Your task to perform on an android device: Open battery settings Image 0: 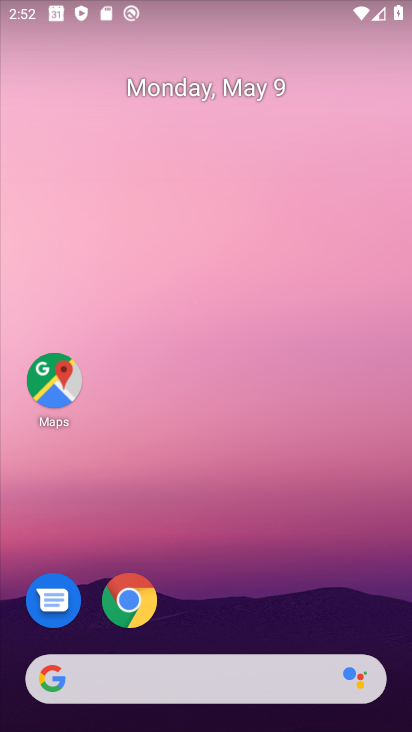
Step 0: drag from (221, 702) to (222, 148)
Your task to perform on an android device: Open battery settings Image 1: 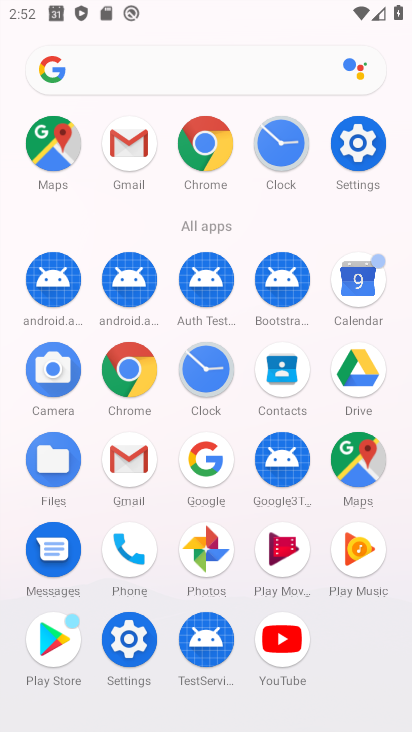
Step 1: click (356, 142)
Your task to perform on an android device: Open battery settings Image 2: 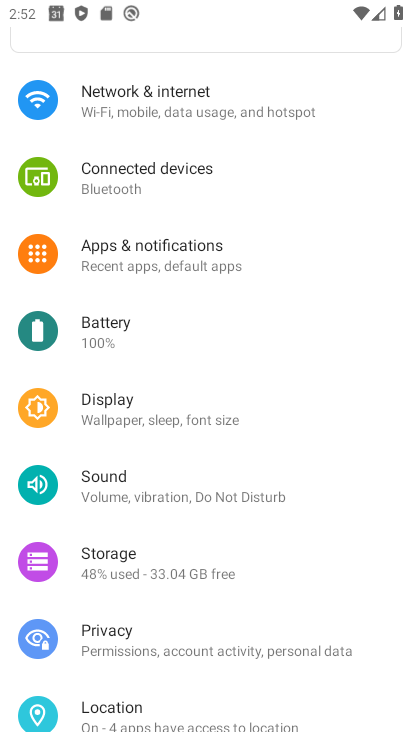
Step 2: click (94, 326)
Your task to perform on an android device: Open battery settings Image 3: 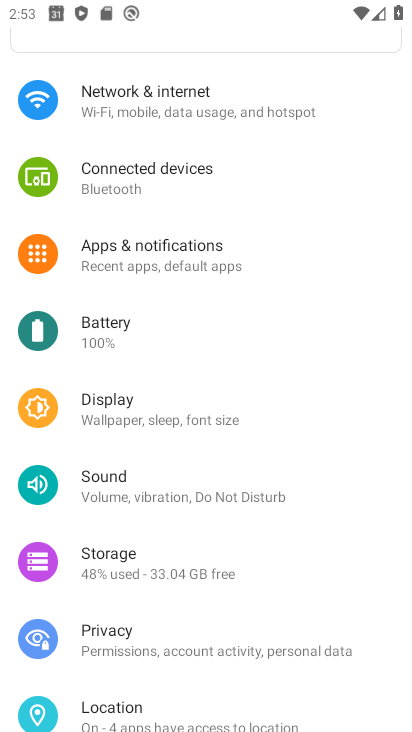
Step 3: click (99, 331)
Your task to perform on an android device: Open battery settings Image 4: 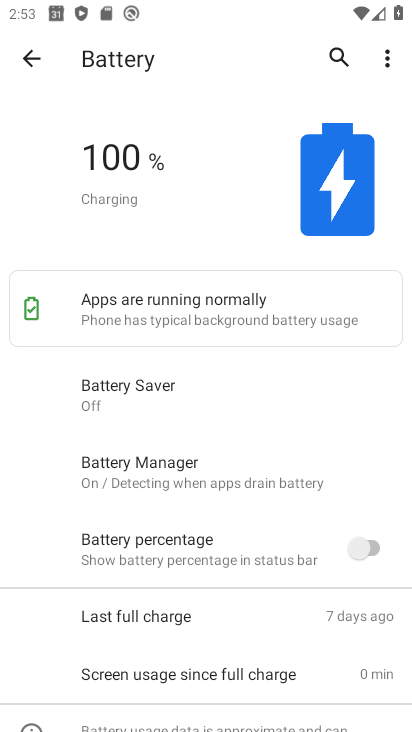
Step 4: task complete